Your task to perform on an android device: turn off wifi Image 0: 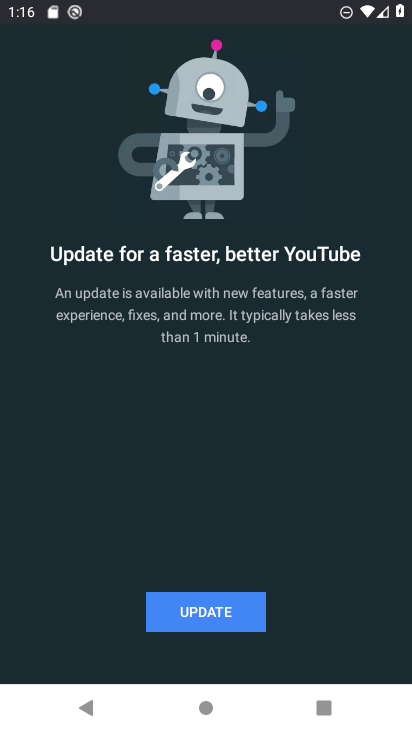
Step 0: press home button
Your task to perform on an android device: turn off wifi Image 1: 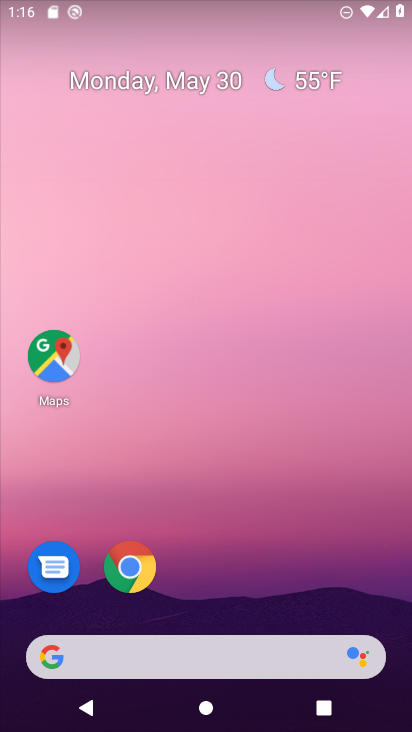
Step 1: drag from (198, 3) to (194, 607)
Your task to perform on an android device: turn off wifi Image 2: 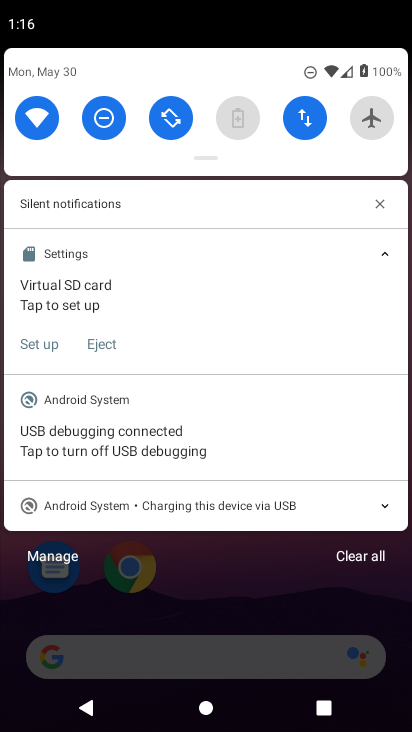
Step 2: click (41, 115)
Your task to perform on an android device: turn off wifi Image 3: 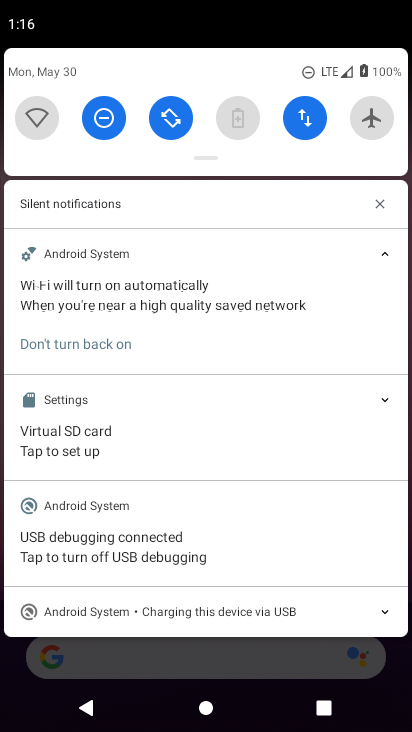
Step 3: task complete